Your task to perform on an android device: change the clock display to show seconds Image 0: 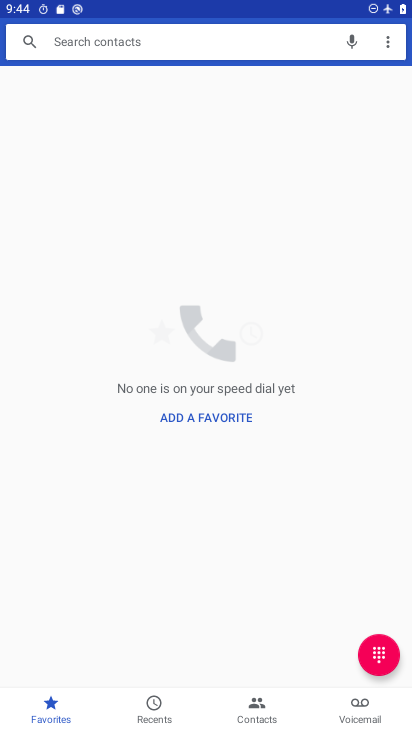
Step 0: press home button
Your task to perform on an android device: change the clock display to show seconds Image 1: 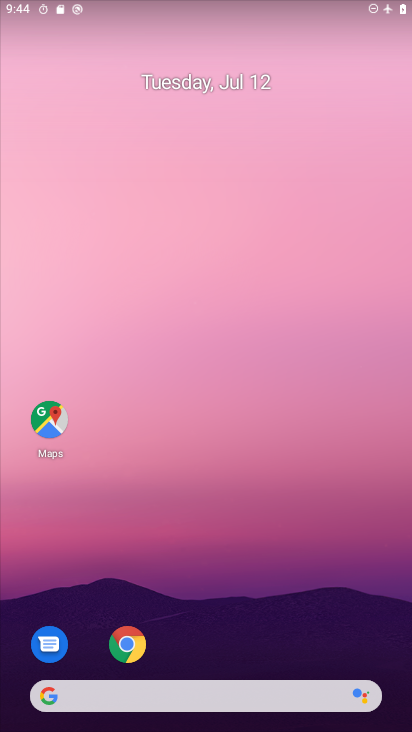
Step 1: drag from (200, 654) to (225, 65)
Your task to perform on an android device: change the clock display to show seconds Image 2: 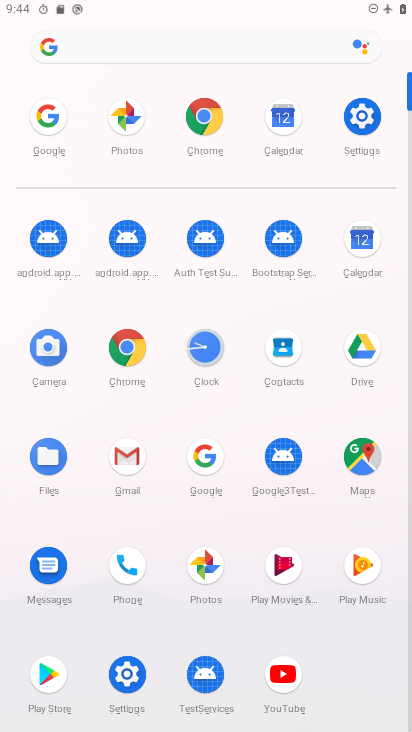
Step 2: click (201, 348)
Your task to perform on an android device: change the clock display to show seconds Image 3: 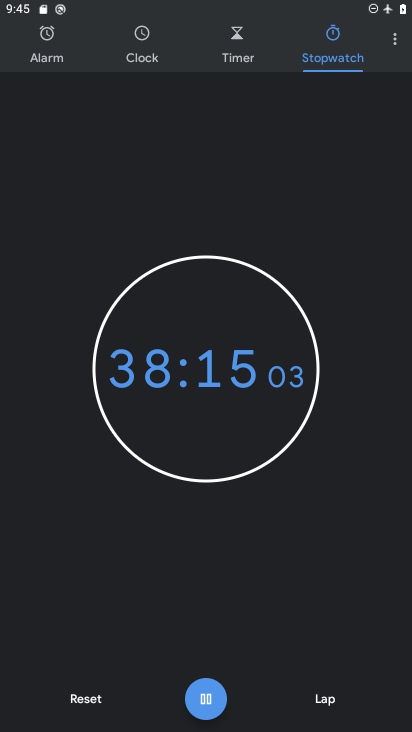
Step 3: click (392, 48)
Your task to perform on an android device: change the clock display to show seconds Image 4: 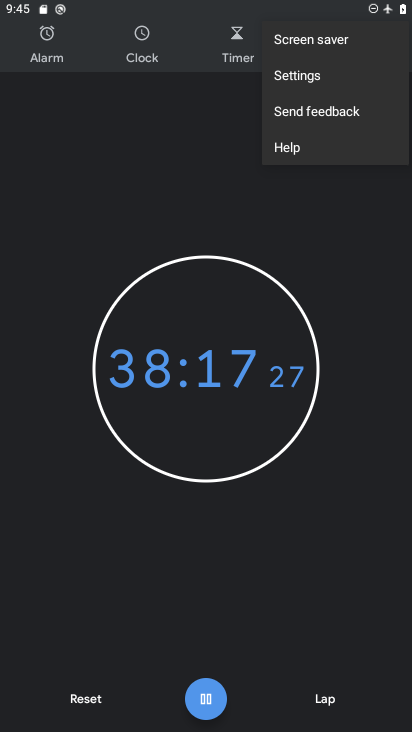
Step 4: click (324, 84)
Your task to perform on an android device: change the clock display to show seconds Image 5: 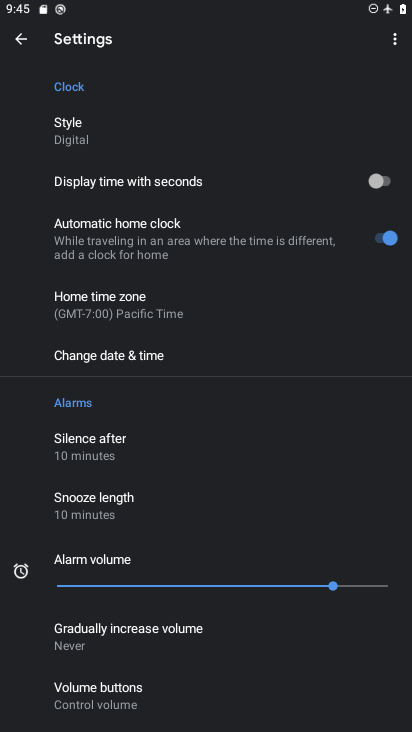
Step 5: click (387, 183)
Your task to perform on an android device: change the clock display to show seconds Image 6: 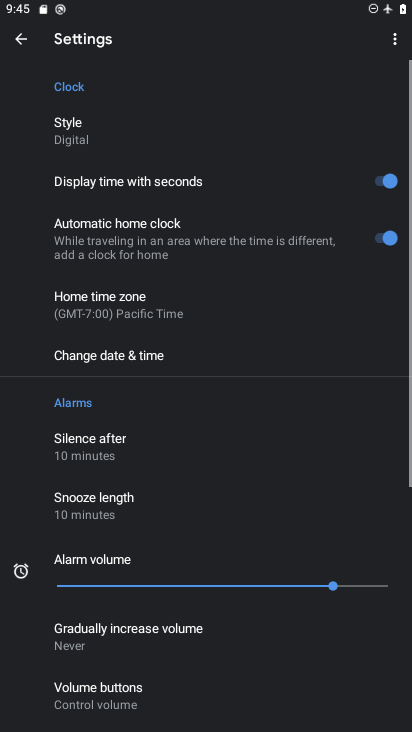
Step 6: task complete